Your task to perform on an android device: install app "Gmail" Image 0: 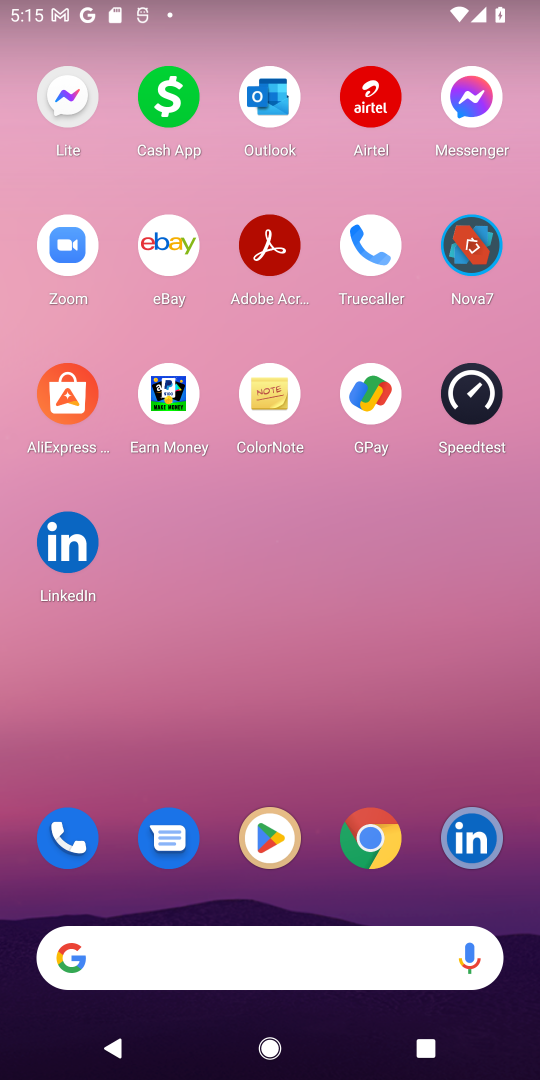
Step 0: drag from (242, 960) to (216, 114)
Your task to perform on an android device: install app "Gmail" Image 1: 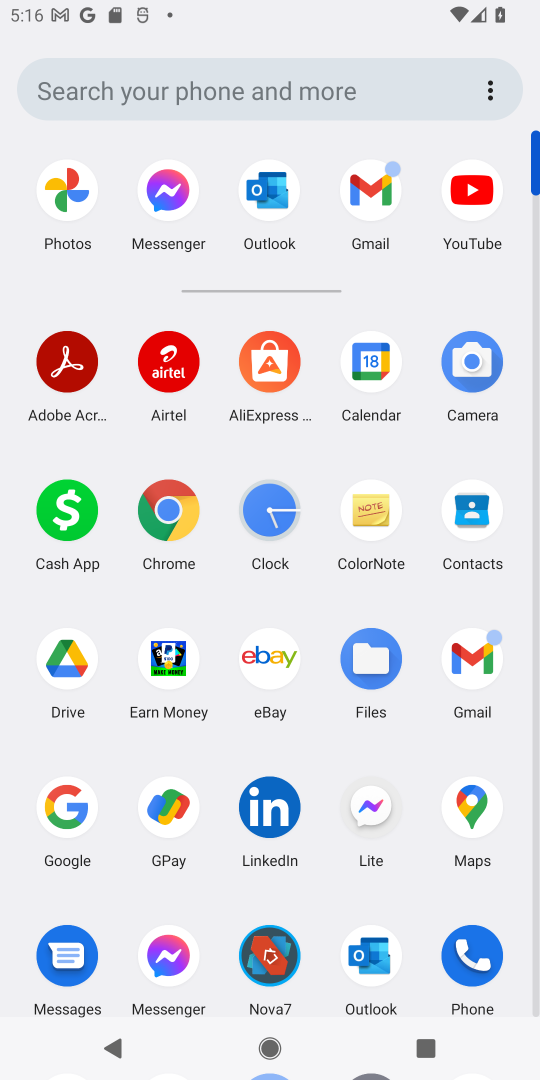
Step 1: drag from (313, 746) to (323, 414)
Your task to perform on an android device: install app "Gmail" Image 2: 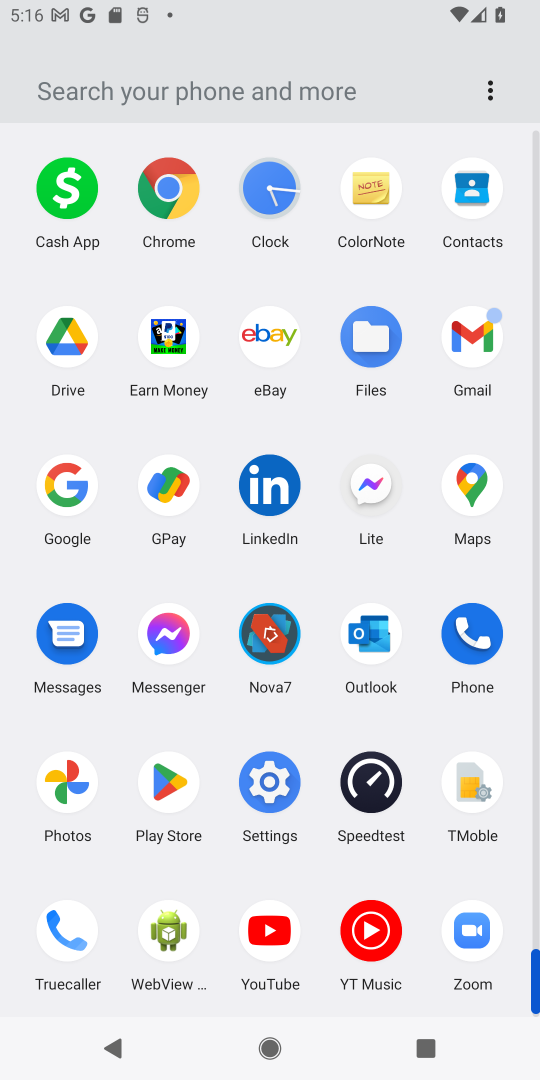
Step 2: click (172, 786)
Your task to perform on an android device: install app "Gmail" Image 3: 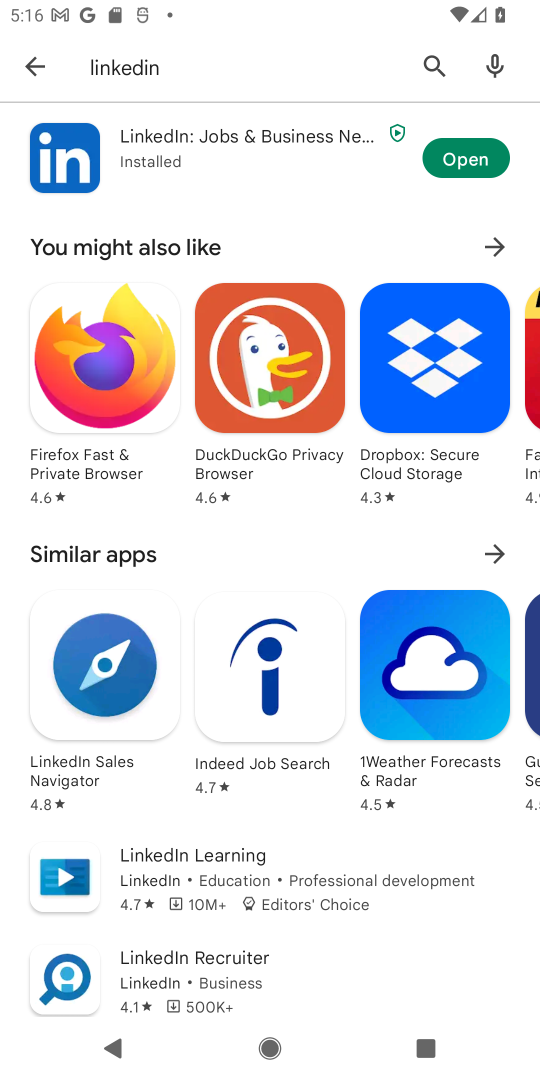
Step 3: click (442, 64)
Your task to perform on an android device: install app "Gmail" Image 4: 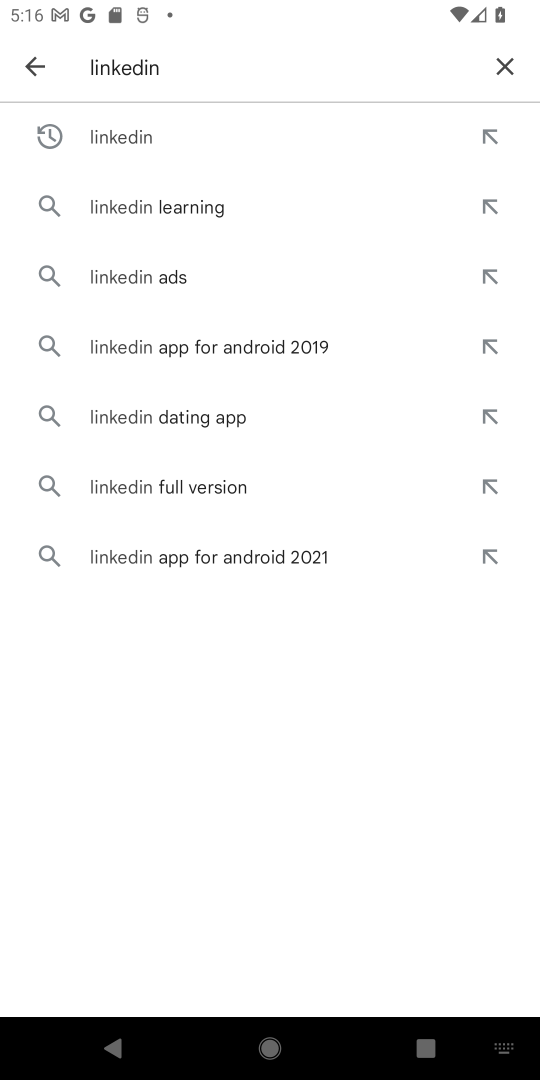
Step 4: click (502, 74)
Your task to perform on an android device: install app "Gmail" Image 5: 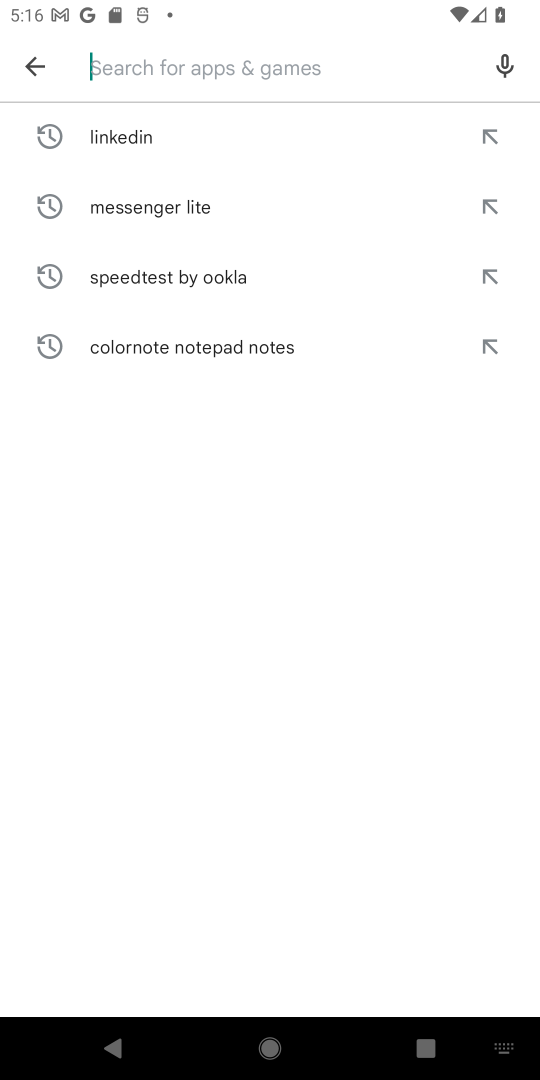
Step 5: type "Gmail"
Your task to perform on an android device: install app "Gmail" Image 6: 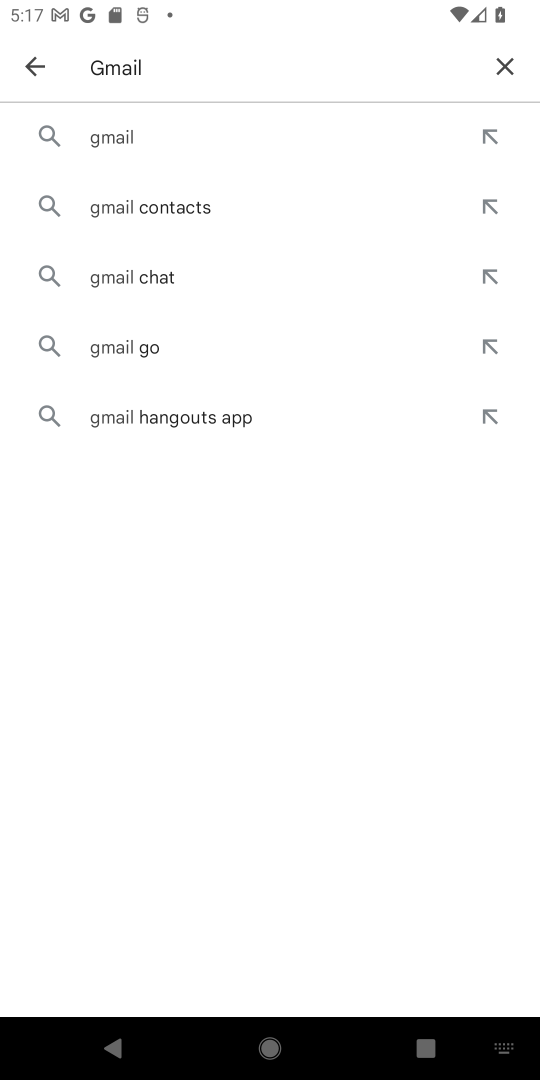
Step 6: click (119, 143)
Your task to perform on an android device: install app "Gmail" Image 7: 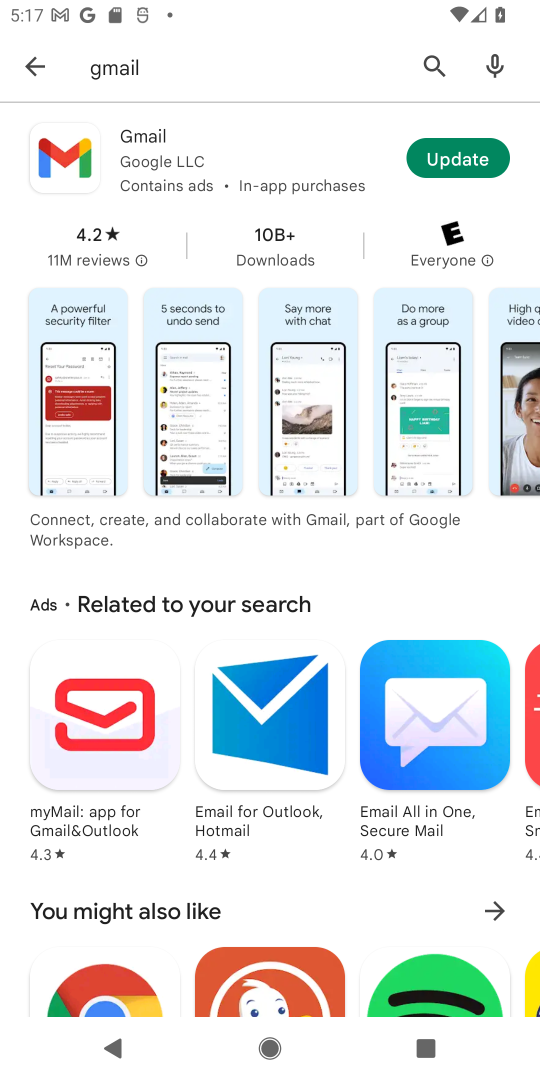
Step 7: click (476, 167)
Your task to perform on an android device: install app "Gmail" Image 8: 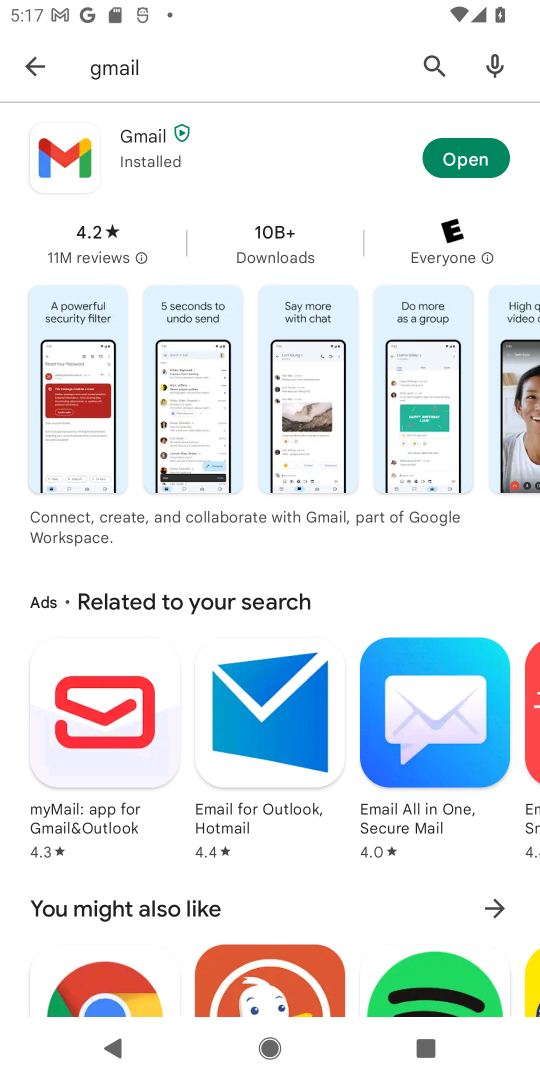
Step 8: task complete